Your task to perform on an android device: Search for a new desk on IKEA. Image 0: 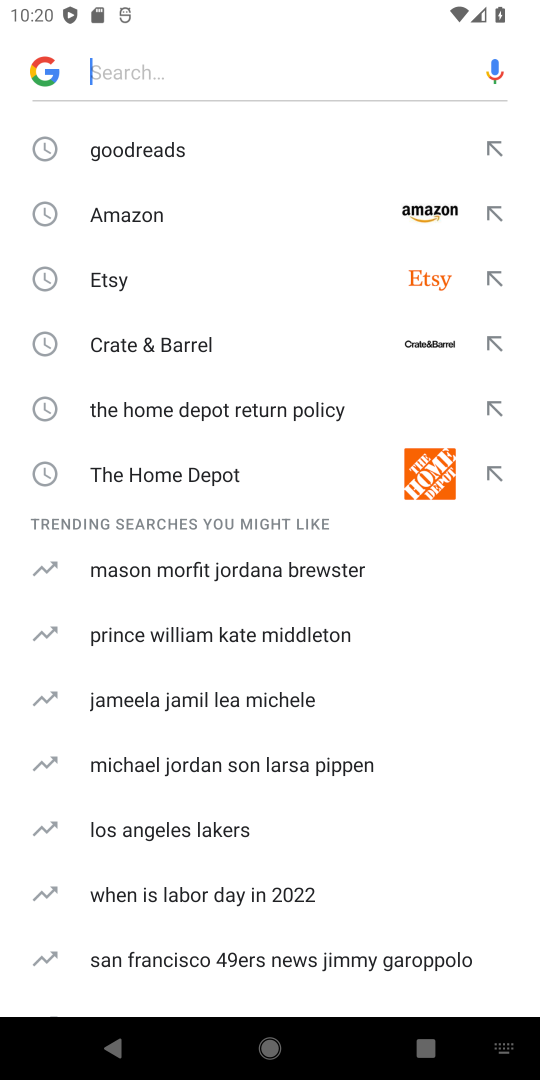
Step 0: type "IKEA"
Your task to perform on an android device: Search for a new desk on IKEA. Image 1: 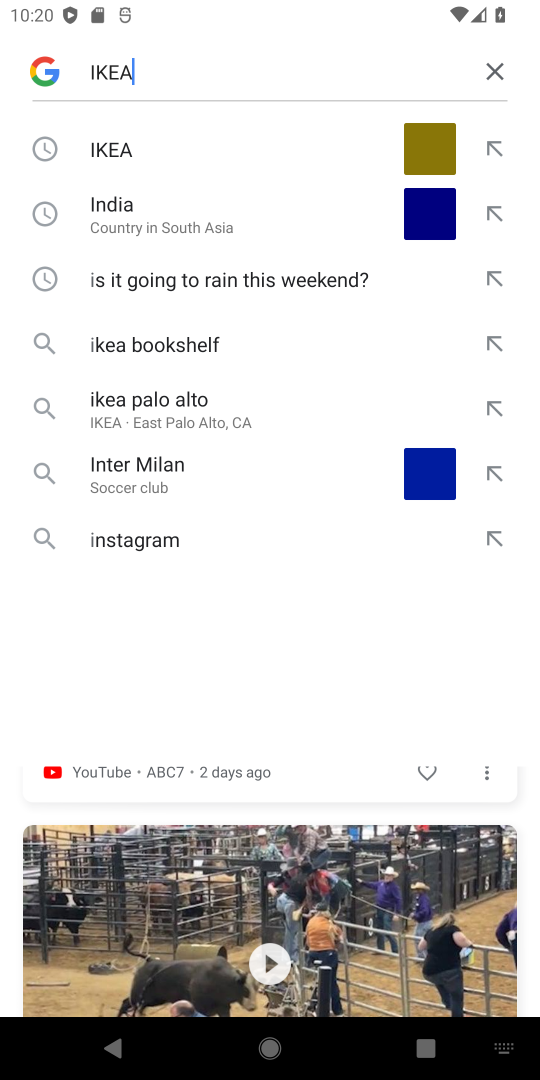
Step 1: type ""
Your task to perform on an android device: Search for a new desk on IKEA. Image 2: 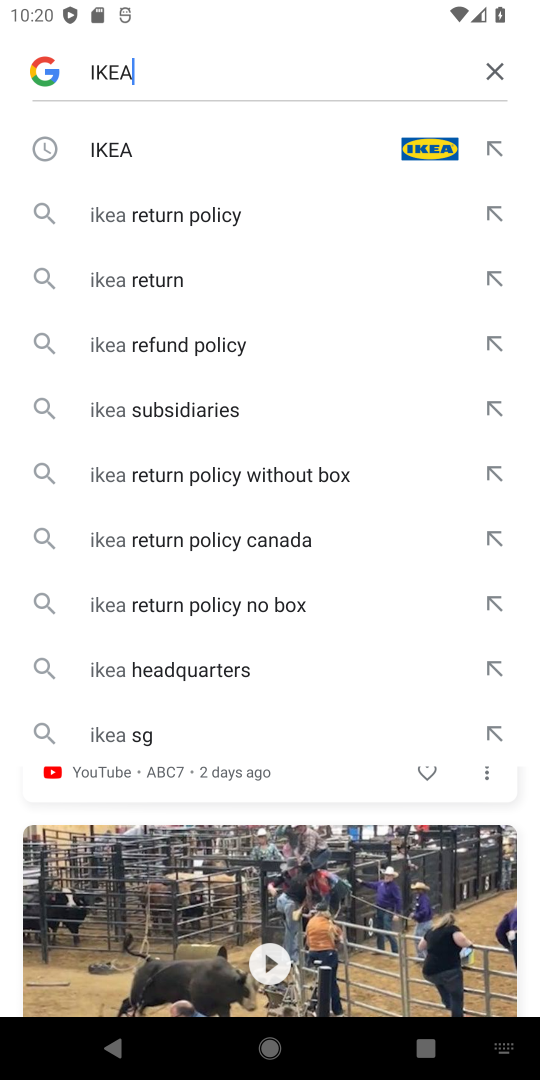
Step 2: click (162, 157)
Your task to perform on an android device: Search for a new desk on IKEA. Image 3: 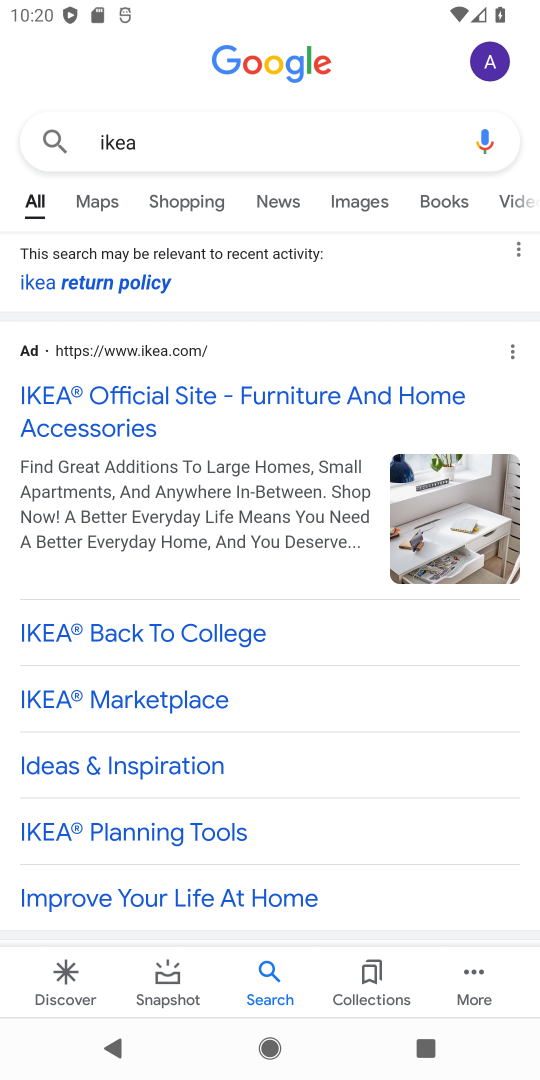
Step 3: drag from (410, 698) to (430, 219)
Your task to perform on an android device: Search for a new desk on IKEA. Image 4: 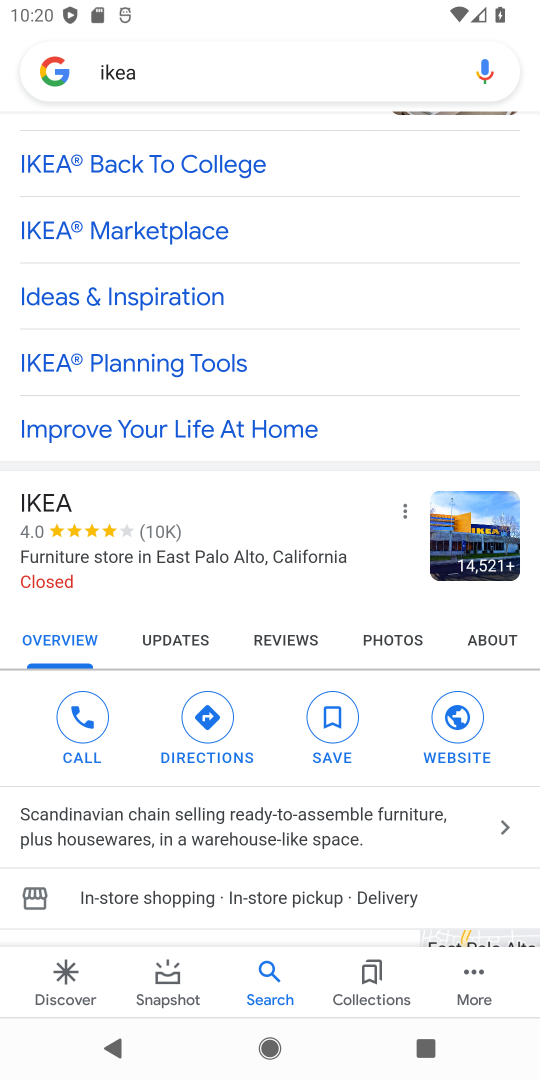
Step 4: drag from (395, 323) to (401, 81)
Your task to perform on an android device: Search for a new desk on IKEA. Image 5: 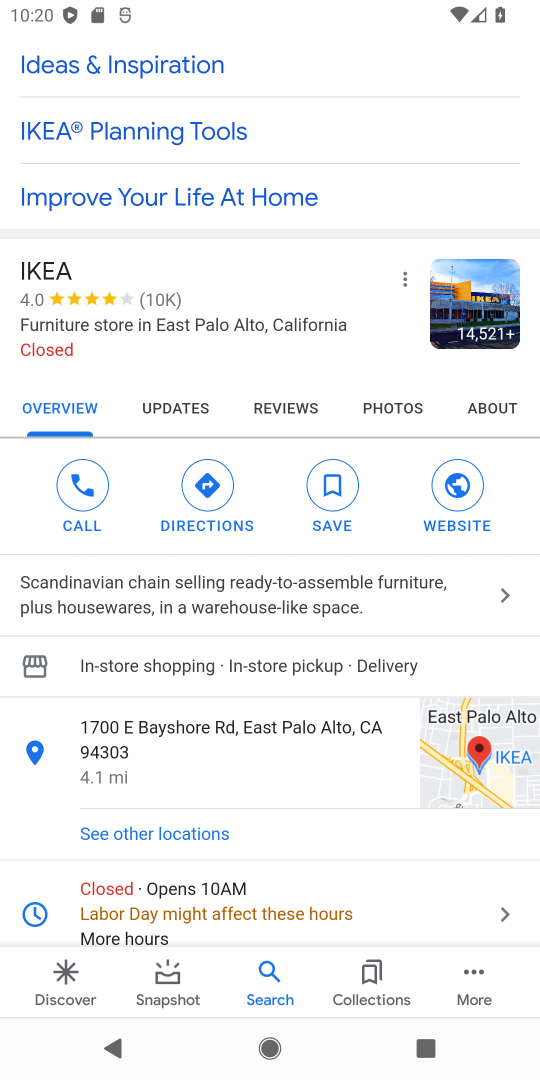
Step 5: drag from (399, 819) to (359, 344)
Your task to perform on an android device: Search for a new desk on IKEA. Image 6: 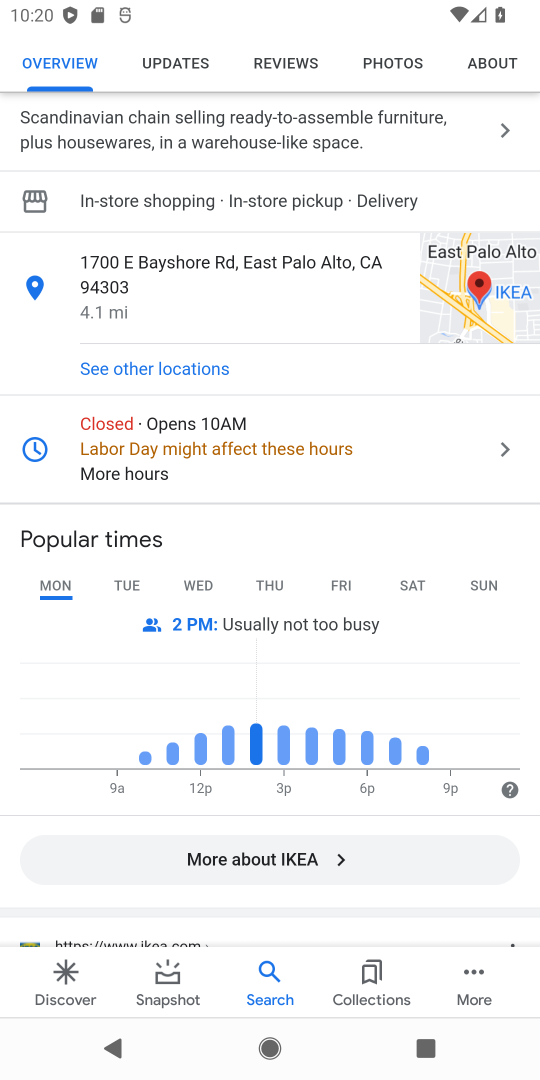
Step 6: drag from (408, 864) to (422, 640)
Your task to perform on an android device: Search for a new desk on IKEA. Image 7: 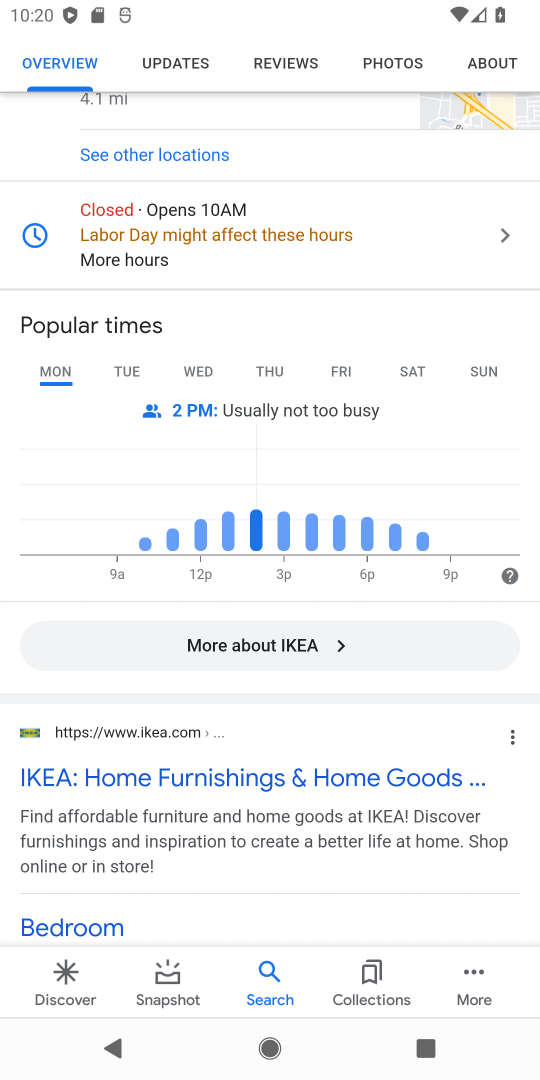
Step 7: drag from (344, 520) to (359, 425)
Your task to perform on an android device: Search for a new desk on IKEA. Image 8: 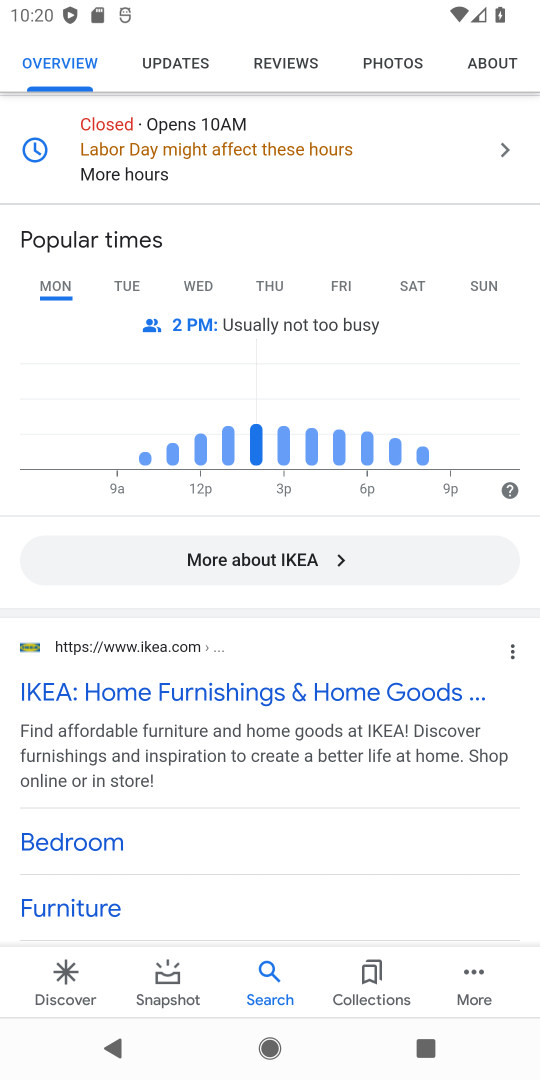
Step 8: click (260, 704)
Your task to perform on an android device: Search for a new desk on IKEA. Image 9: 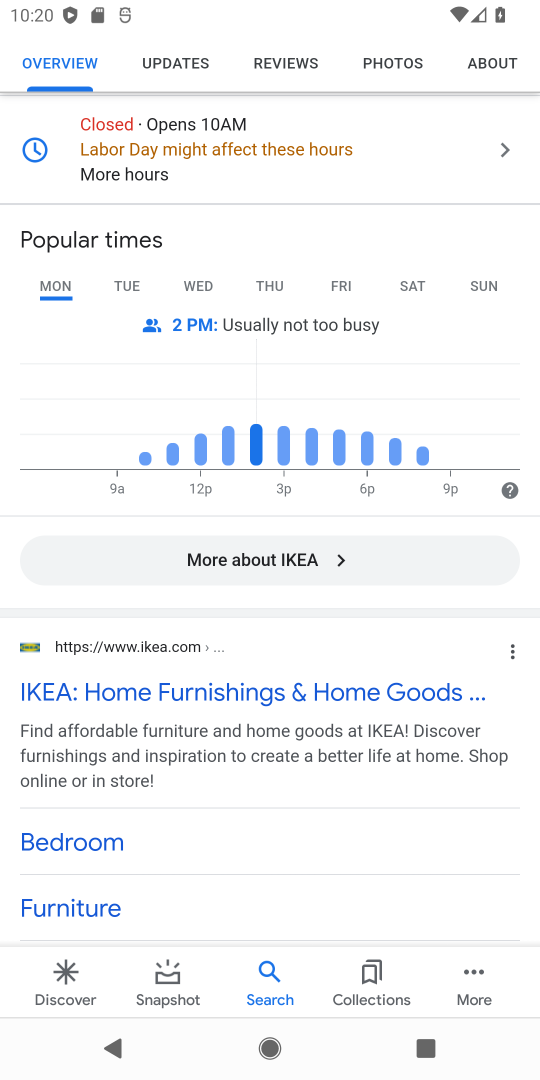
Step 9: click (184, 696)
Your task to perform on an android device: Search for a new desk on IKEA. Image 10: 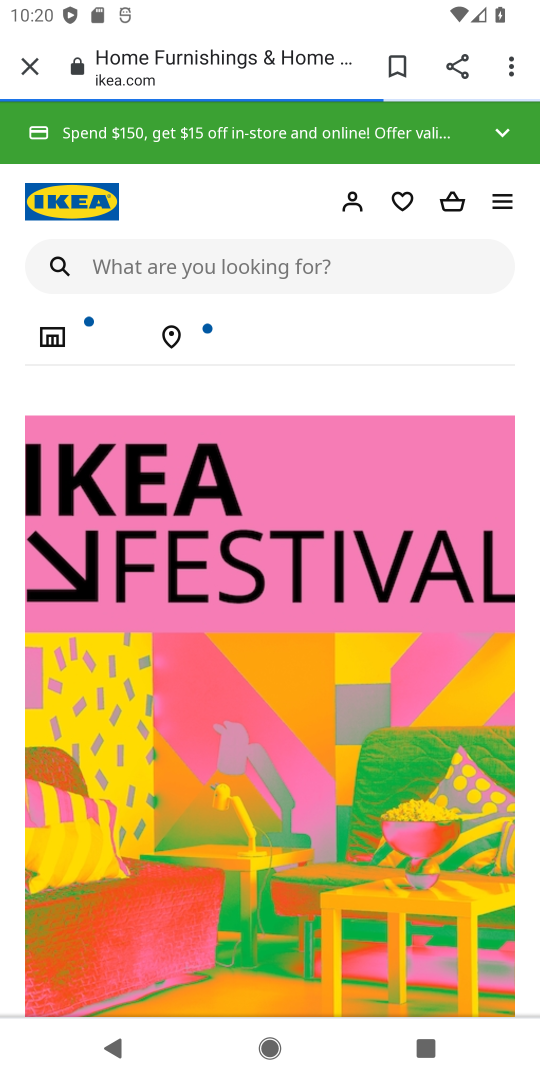
Step 10: click (196, 278)
Your task to perform on an android device: Search for a new desk on IKEA. Image 11: 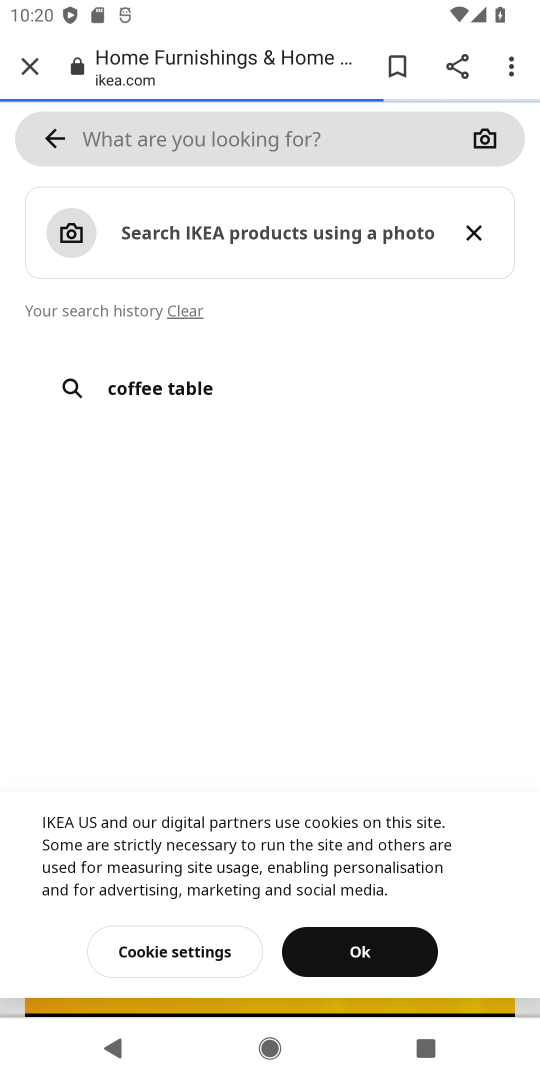
Step 11: click (523, 1066)
Your task to perform on an android device: Search for a new desk on IKEA. Image 12: 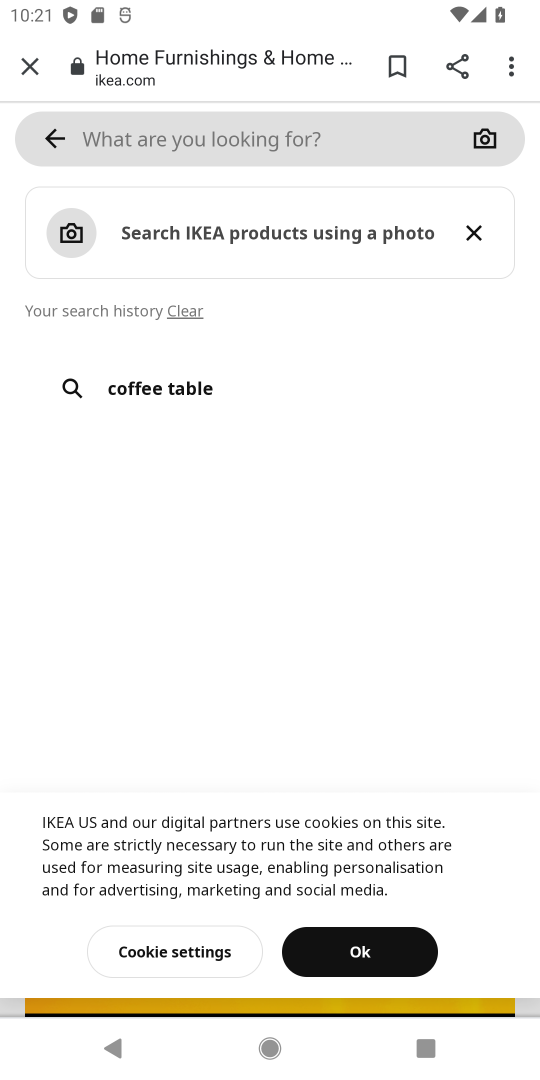
Step 12: type "new desk"
Your task to perform on an android device: Search for a new desk on IKEA. Image 13: 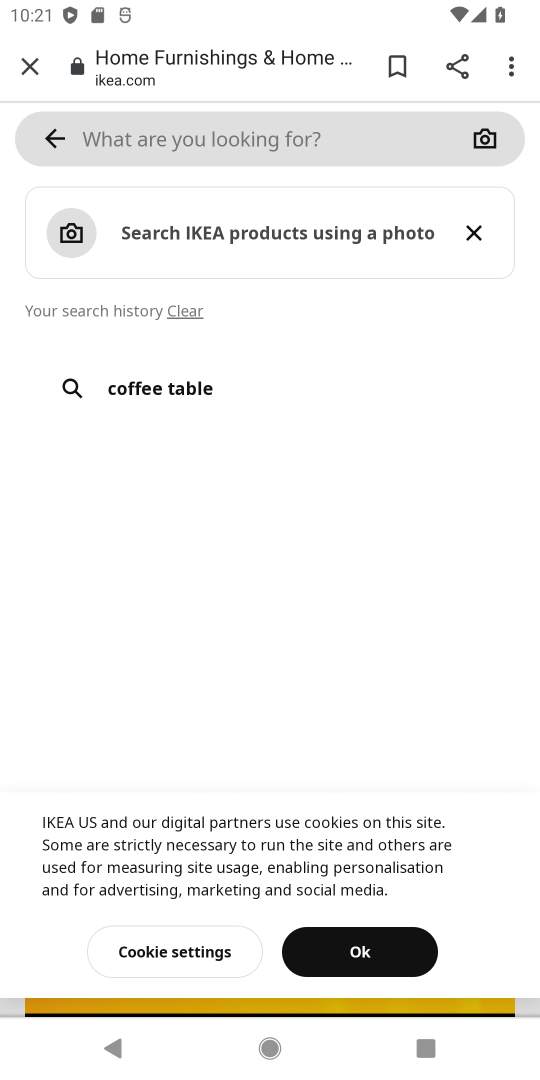
Step 13: type ""
Your task to perform on an android device: Search for a new desk on IKEA. Image 14: 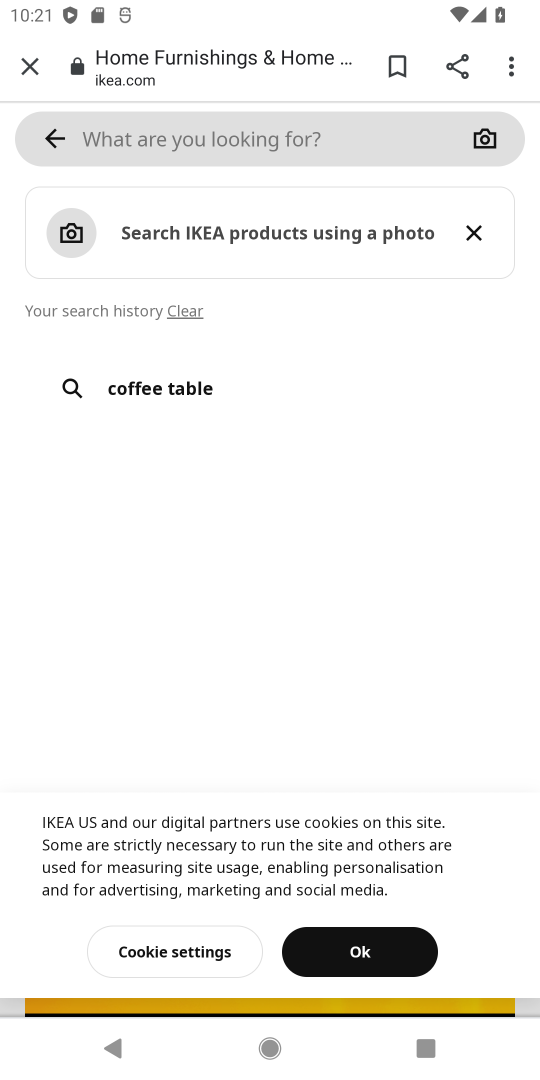
Step 14: drag from (523, 1066) to (212, 3)
Your task to perform on an android device: Search for a new desk on IKEA. Image 15: 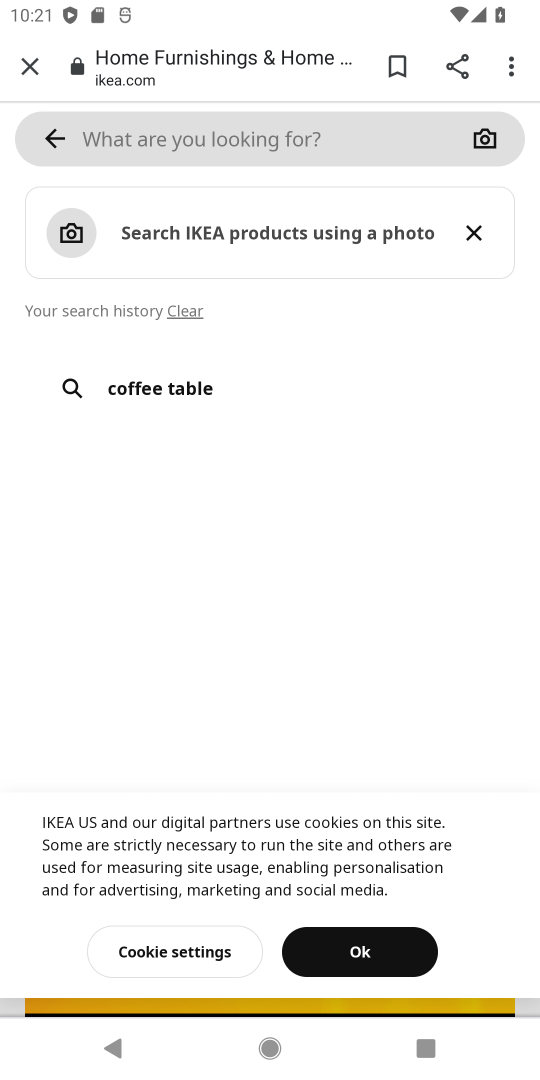
Step 15: click (291, 145)
Your task to perform on an android device: Search for a new desk on IKEA. Image 16: 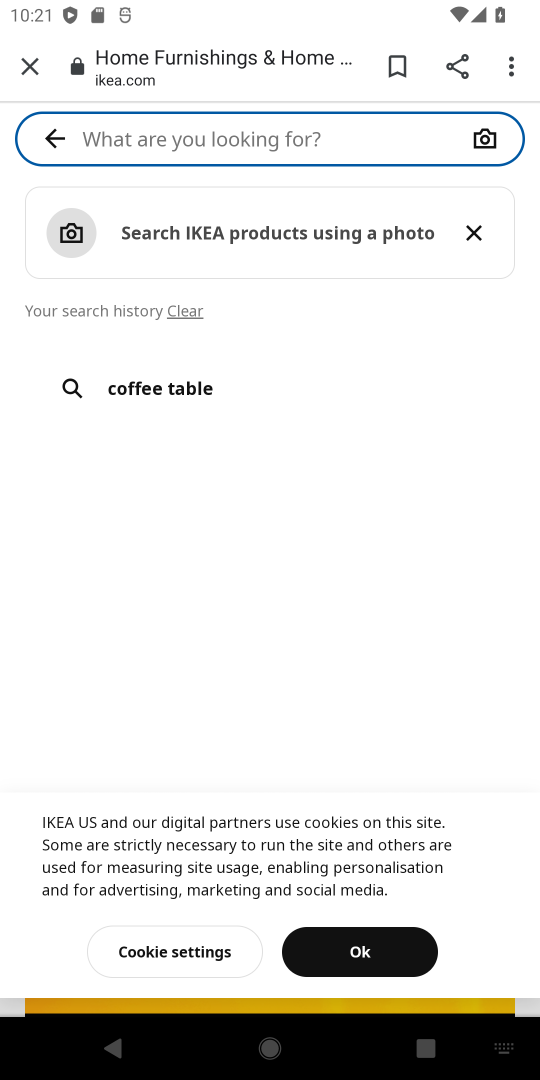
Step 16: type " new desk"
Your task to perform on an android device: Search for a new desk on IKEA. Image 17: 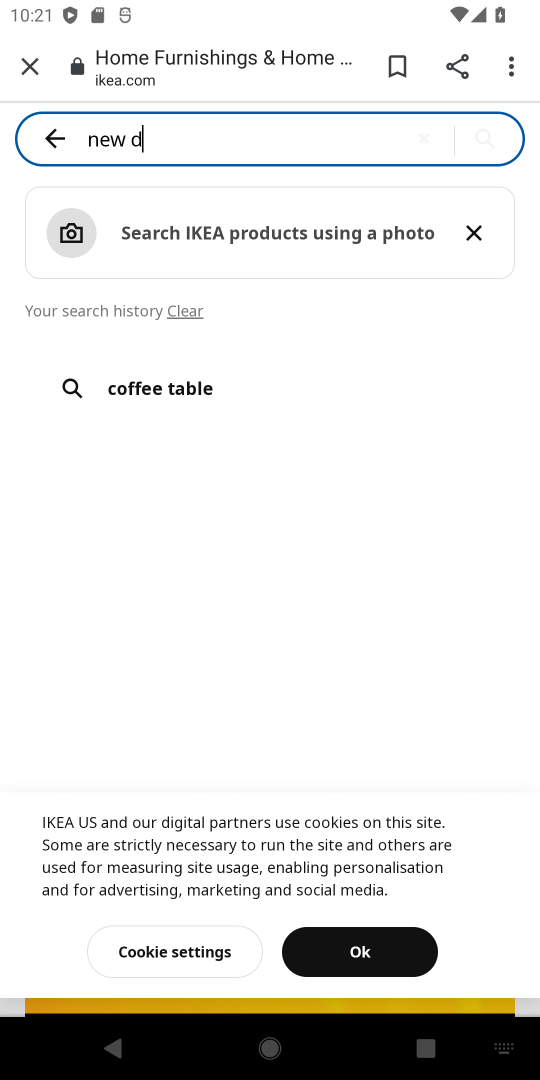
Step 17: type ""
Your task to perform on an android device: Search for a new desk on IKEA. Image 18: 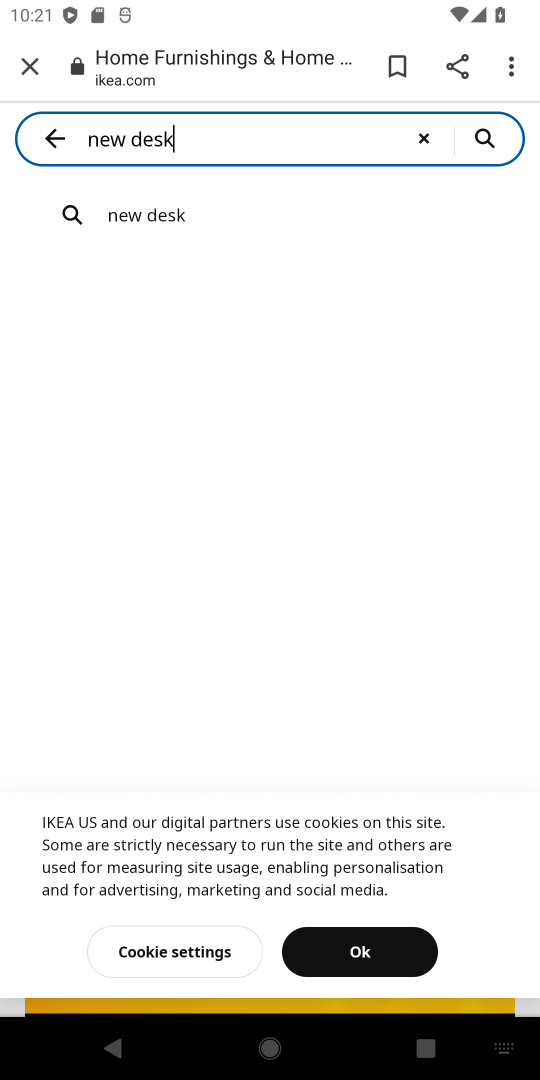
Step 18: click (172, 219)
Your task to perform on an android device: Search for a new desk on IKEA. Image 19: 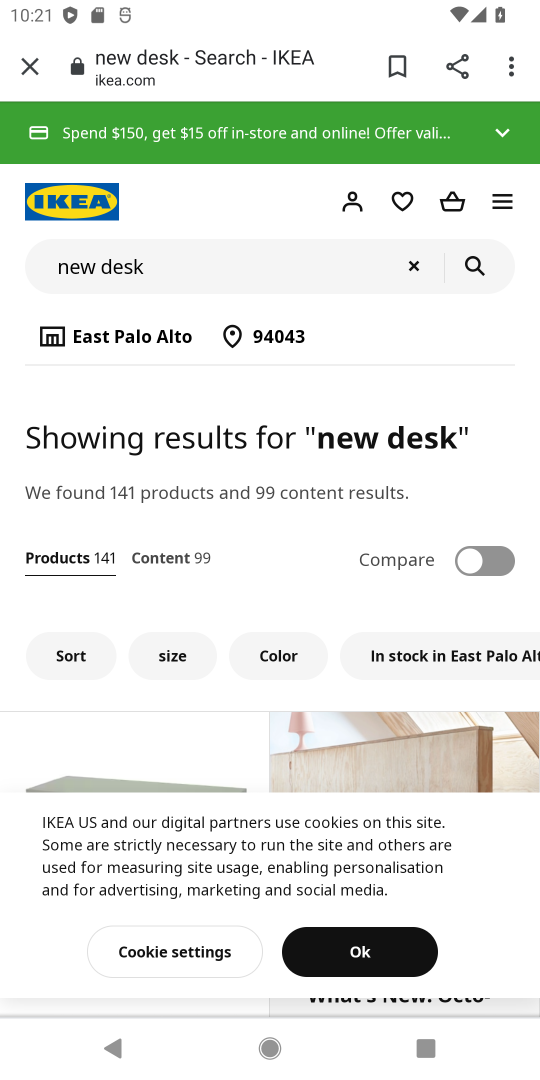
Step 19: task complete